Your task to perform on an android device: Open maps Image 0: 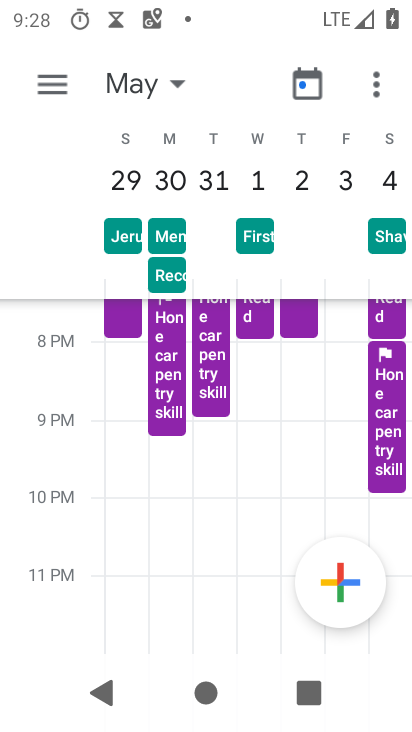
Step 0: press home button
Your task to perform on an android device: Open maps Image 1: 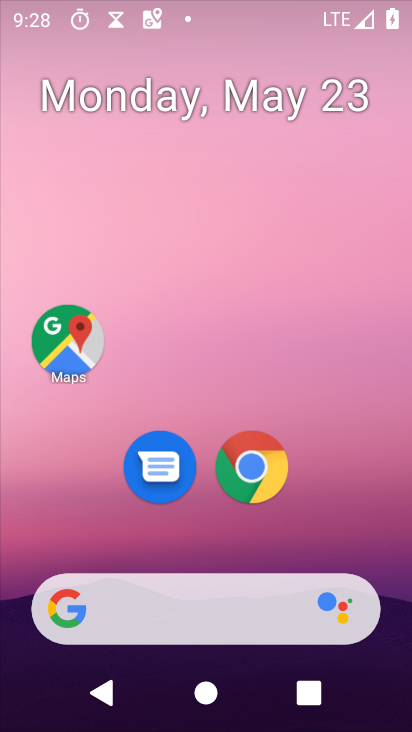
Step 1: click (70, 354)
Your task to perform on an android device: Open maps Image 2: 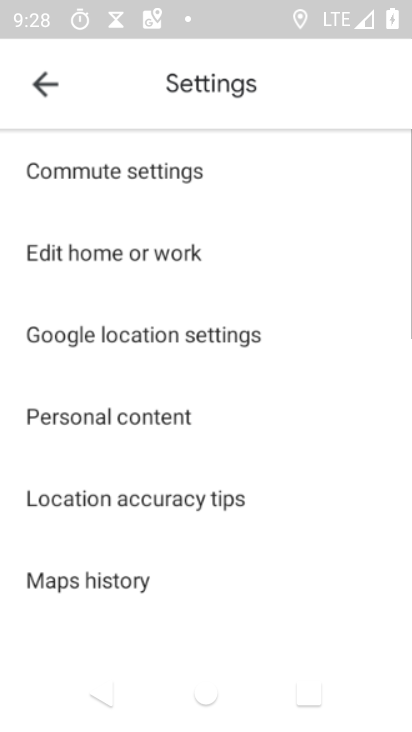
Step 2: task complete